Your task to perform on an android device: add a contact Image 0: 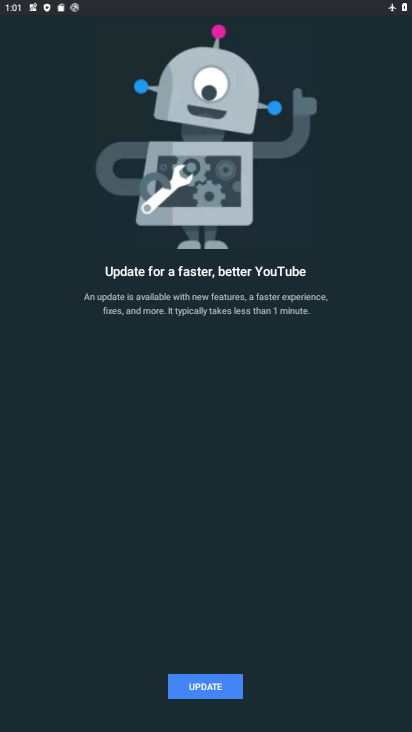
Step 0: press back button
Your task to perform on an android device: add a contact Image 1: 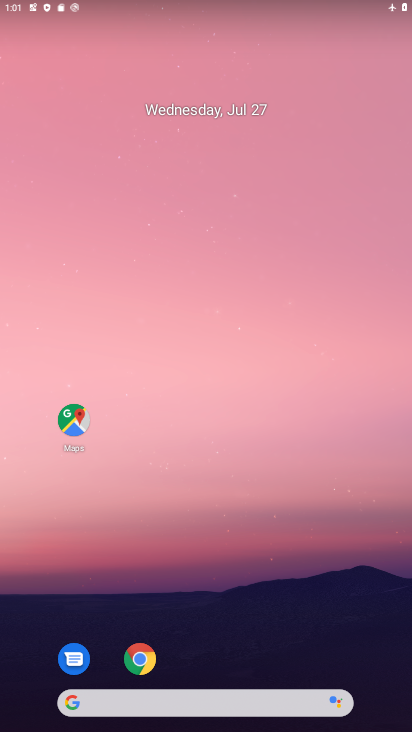
Step 1: drag from (236, 560) to (271, 175)
Your task to perform on an android device: add a contact Image 2: 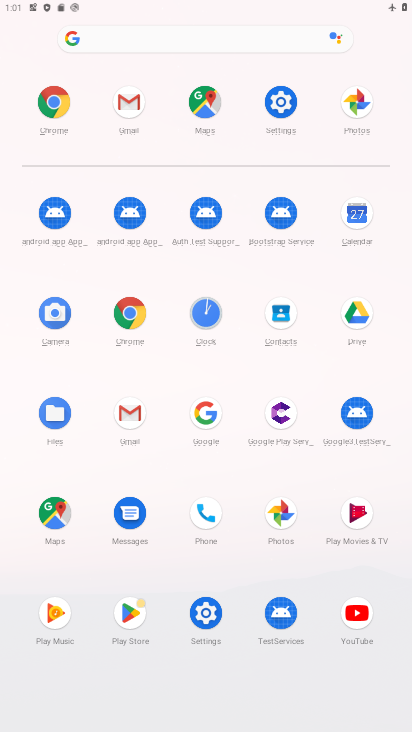
Step 2: click (276, 320)
Your task to perform on an android device: add a contact Image 3: 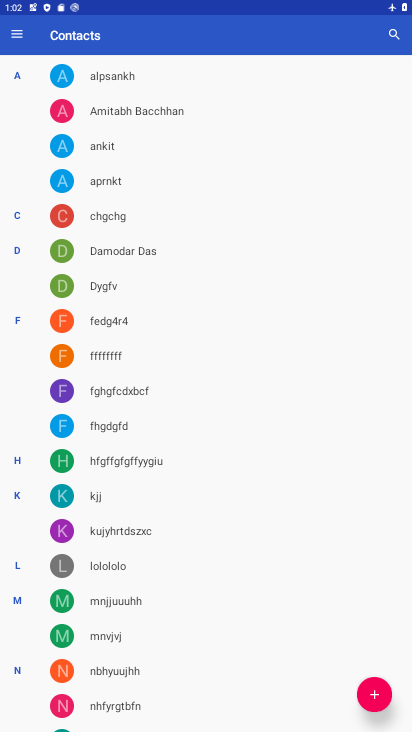
Step 3: click (362, 699)
Your task to perform on an android device: add a contact Image 4: 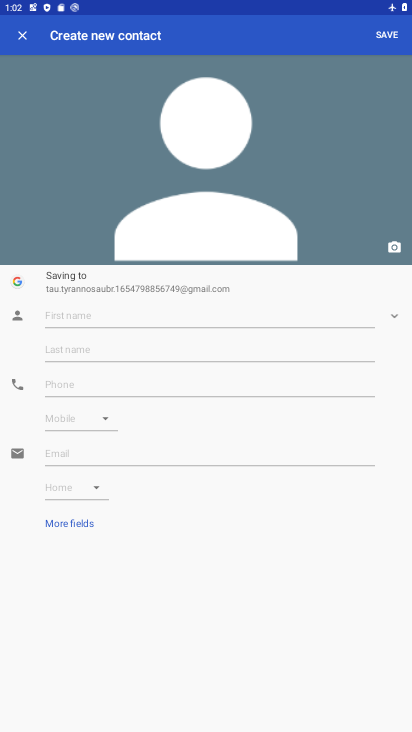
Step 4: click (153, 319)
Your task to perform on an android device: add a contact Image 5: 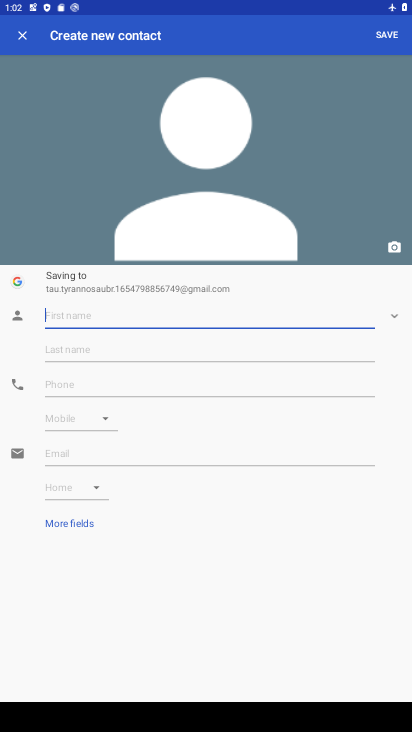
Step 5: type "fdrgdr"
Your task to perform on an android device: add a contact Image 6: 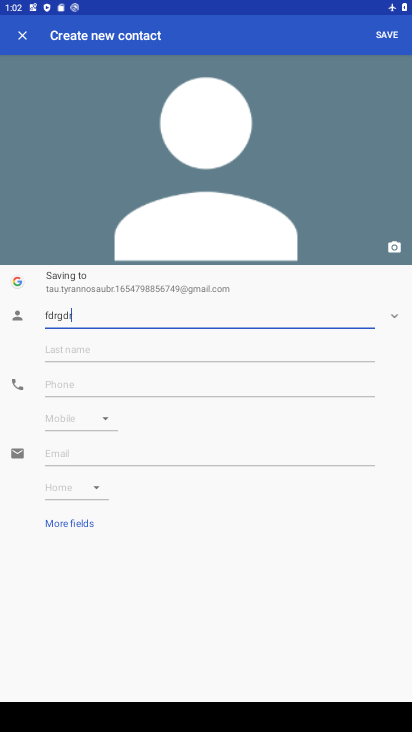
Step 6: type ""
Your task to perform on an android device: add a contact Image 7: 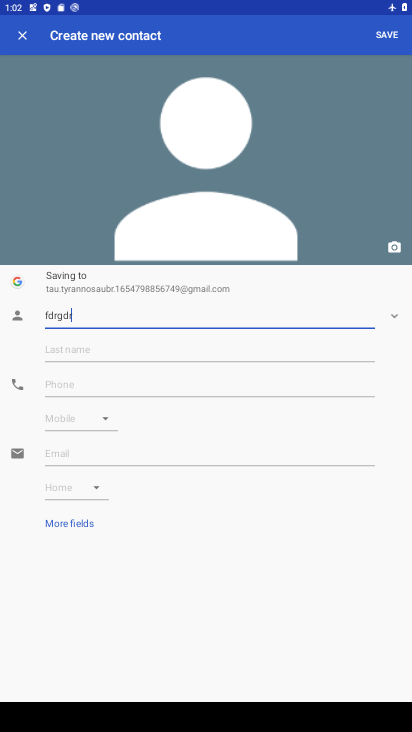
Step 7: click (368, 43)
Your task to perform on an android device: add a contact Image 8: 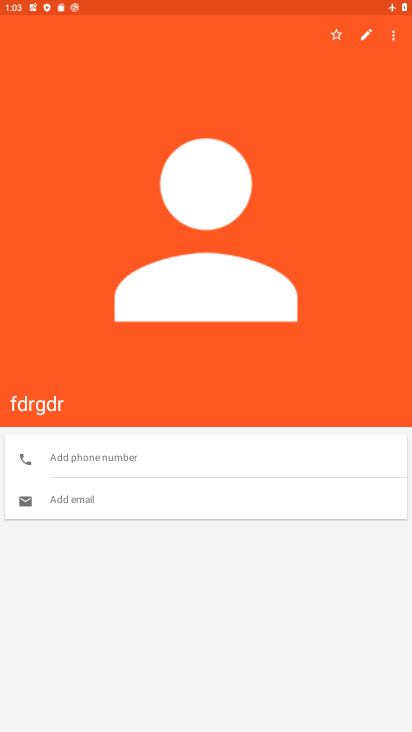
Step 8: task complete